Your task to perform on an android device: Open the calendar and show me this week's events? Image 0: 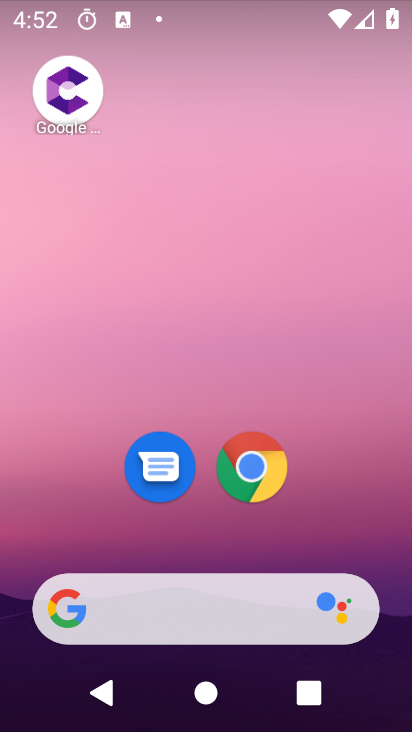
Step 0: drag from (247, 546) to (239, 127)
Your task to perform on an android device: Open the calendar and show me this week's events? Image 1: 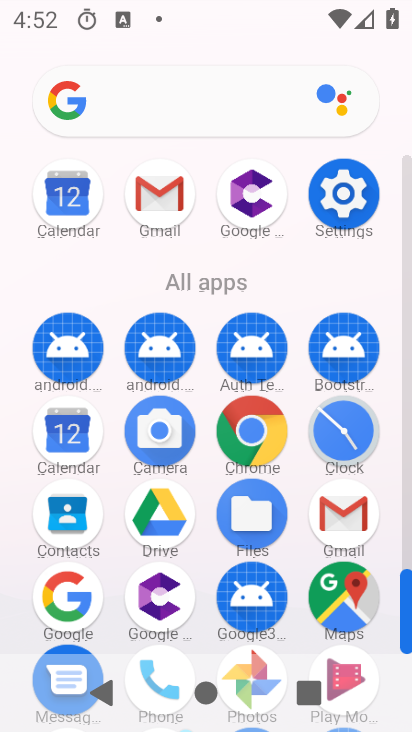
Step 1: click (59, 435)
Your task to perform on an android device: Open the calendar and show me this week's events? Image 2: 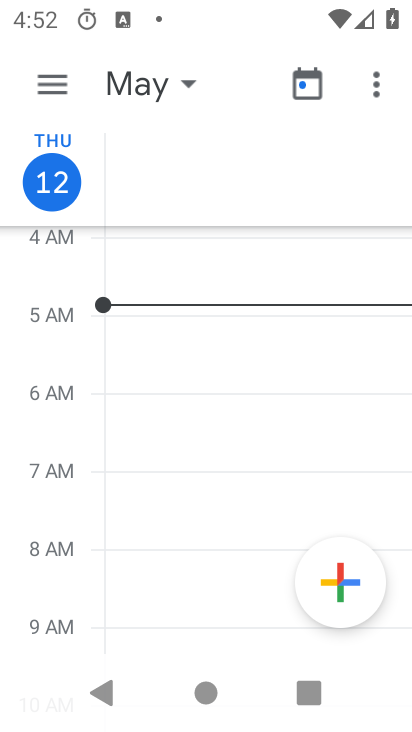
Step 2: click (183, 79)
Your task to perform on an android device: Open the calendar and show me this week's events? Image 3: 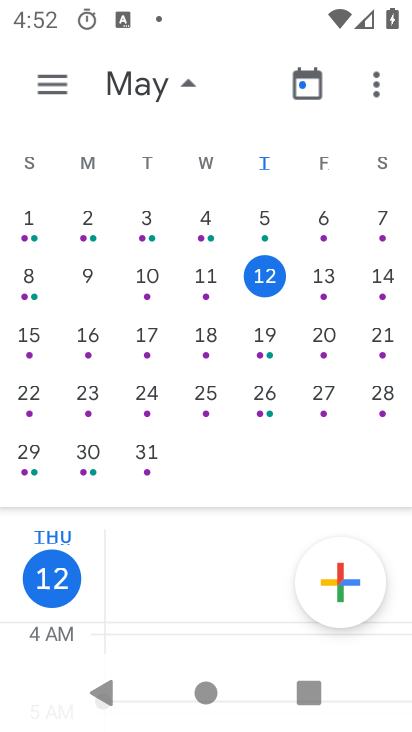
Step 3: click (52, 87)
Your task to perform on an android device: Open the calendar and show me this week's events? Image 4: 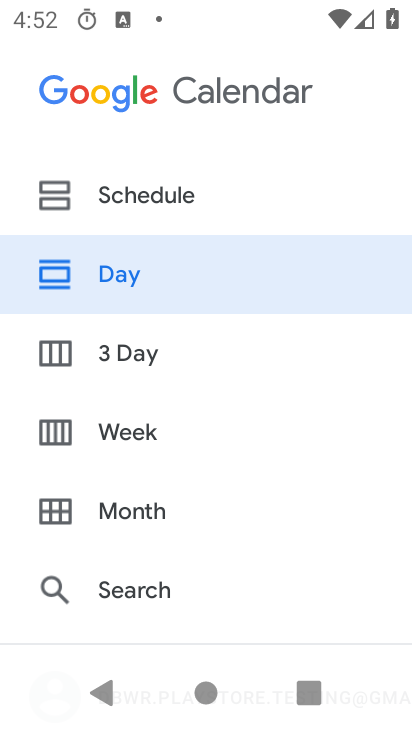
Step 4: click (167, 441)
Your task to perform on an android device: Open the calendar and show me this week's events? Image 5: 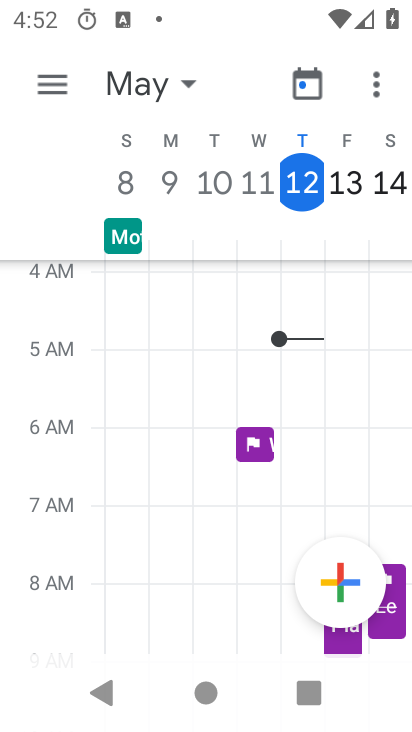
Step 5: task complete